Your task to perform on an android device: Open eBay Image 0: 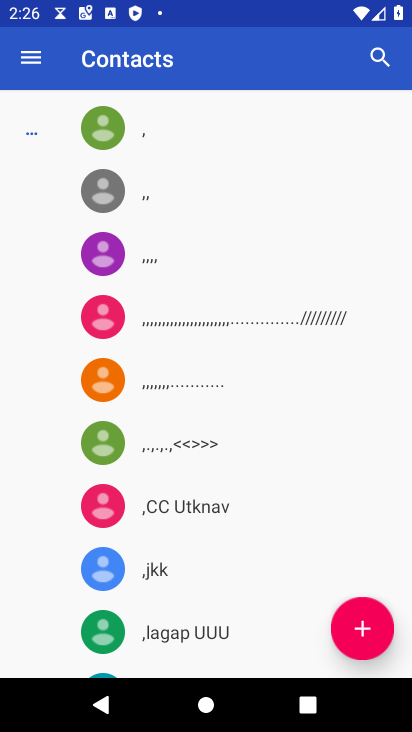
Step 0: press home button
Your task to perform on an android device: Open eBay Image 1: 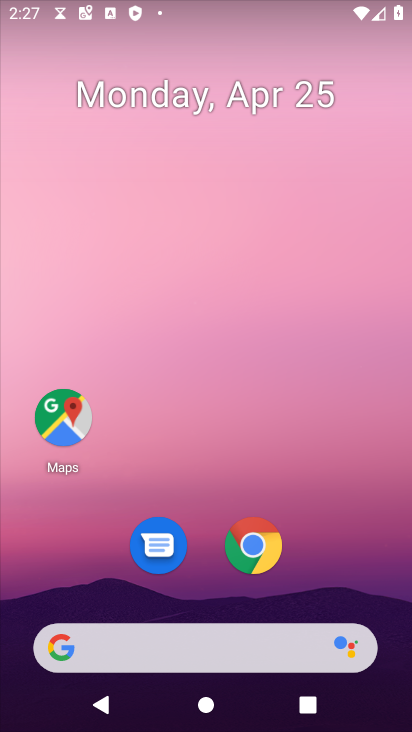
Step 1: click (262, 558)
Your task to perform on an android device: Open eBay Image 2: 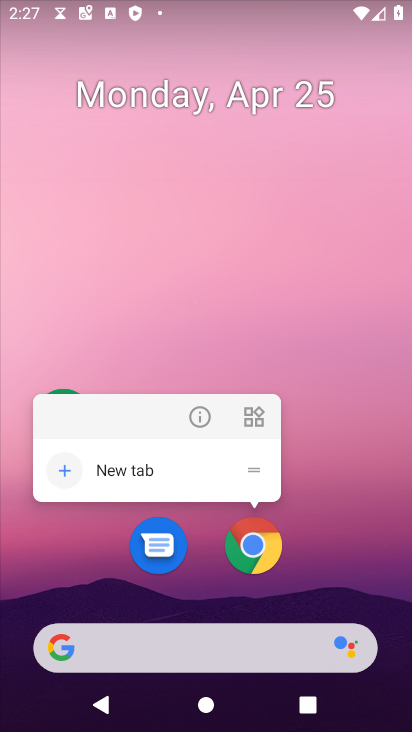
Step 2: click (252, 565)
Your task to perform on an android device: Open eBay Image 3: 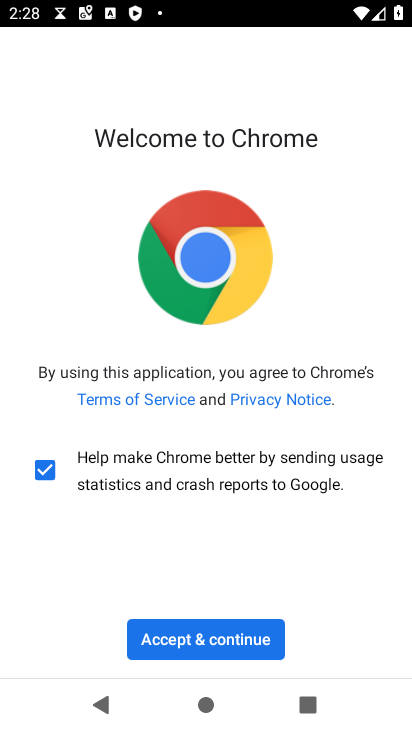
Step 3: click (224, 637)
Your task to perform on an android device: Open eBay Image 4: 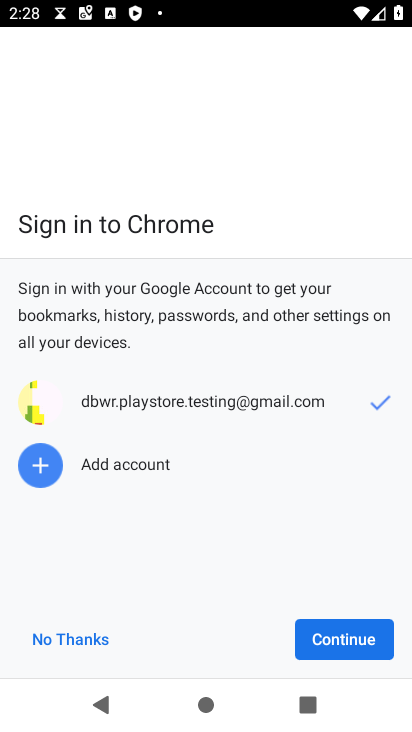
Step 4: click (325, 640)
Your task to perform on an android device: Open eBay Image 5: 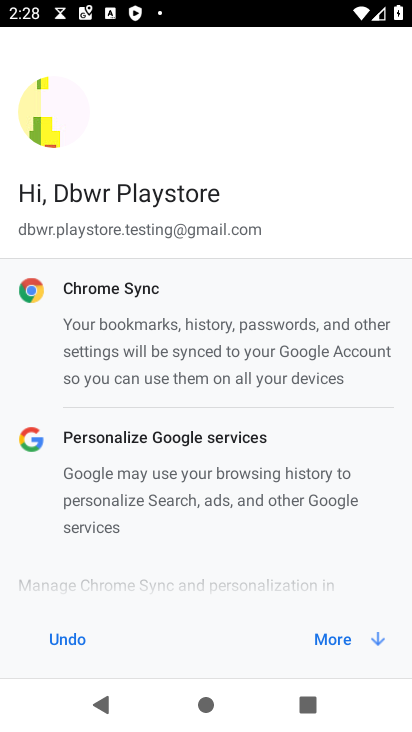
Step 5: click (326, 640)
Your task to perform on an android device: Open eBay Image 6: 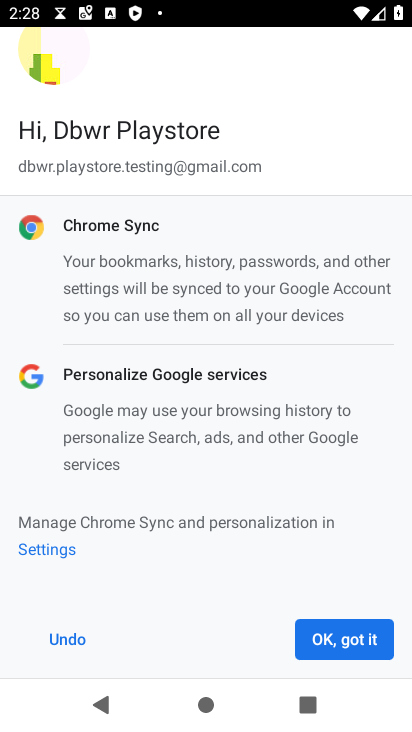
Step 6: click (326, 640)
Your task to perform on an android device: Open eBay Image 7: 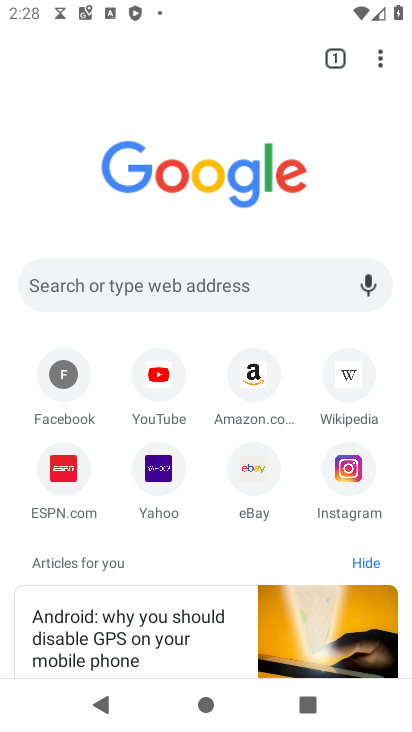
Step 7: click (185, 266)
Your task to perform on an android device: Open eBay Image 8: 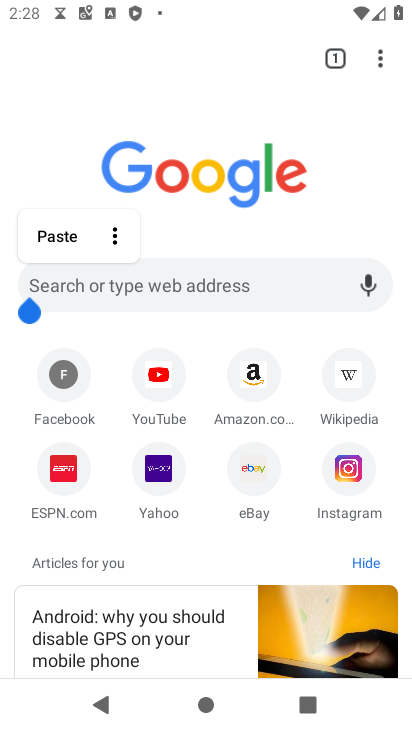
Step 8: click (211, 291)
Your task to perform on an android device: Open eBay Image 9: 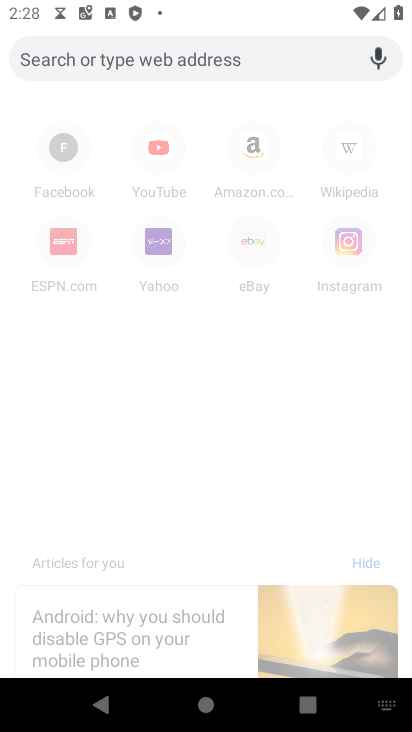
Step 9: type "ebay"
Your task to perform on an android device: Open eBay Image 10: 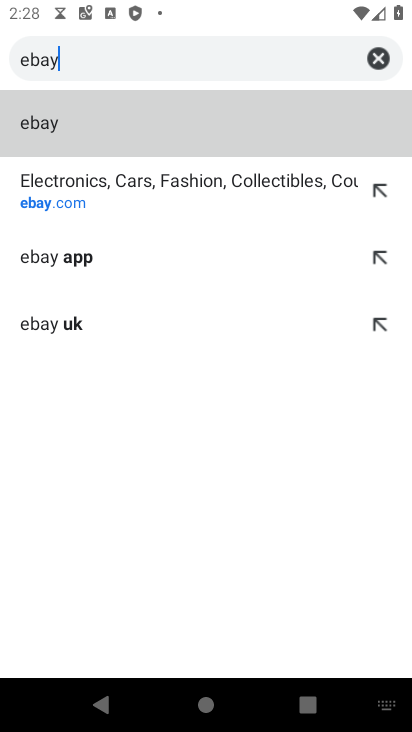
Step 10: click (159, 192)
Your task to perform on an android device: Open eBay Image 11: 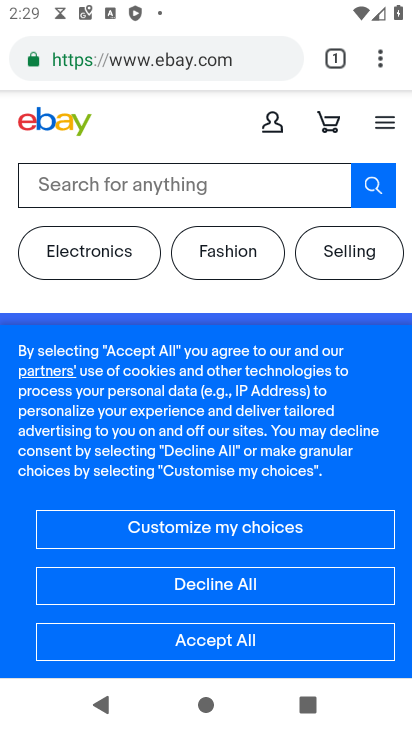
Step 11: task complete